Your task to perform on an android device: Search for a 36" x 48" whiteboard on Home Depot Image 0: 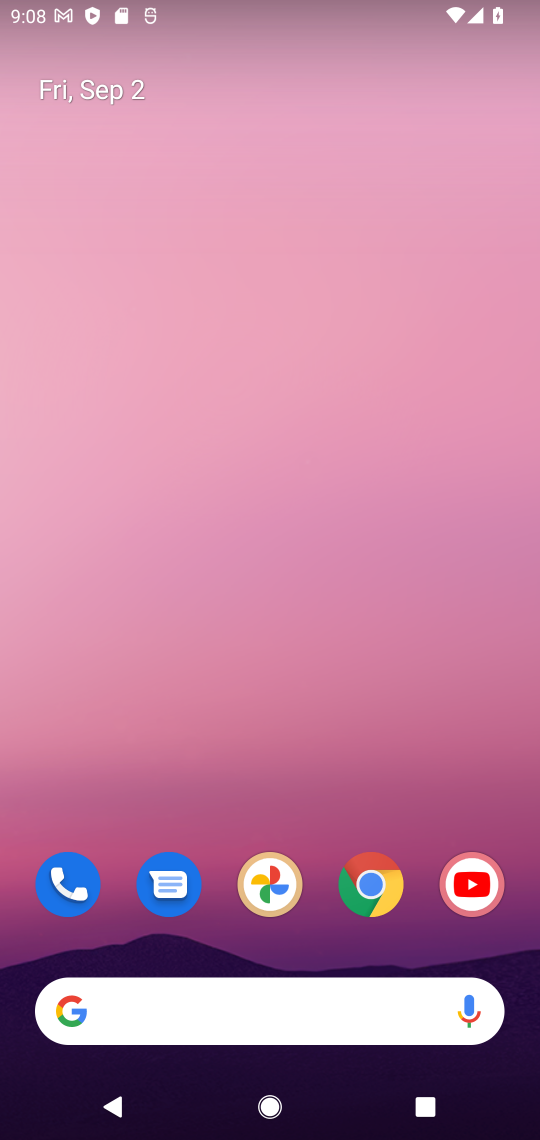
Step 0: click (380, 892)
Your task to perform on an android device: Search for a 36" x 48" whiteboard on Home Depot Image 1: 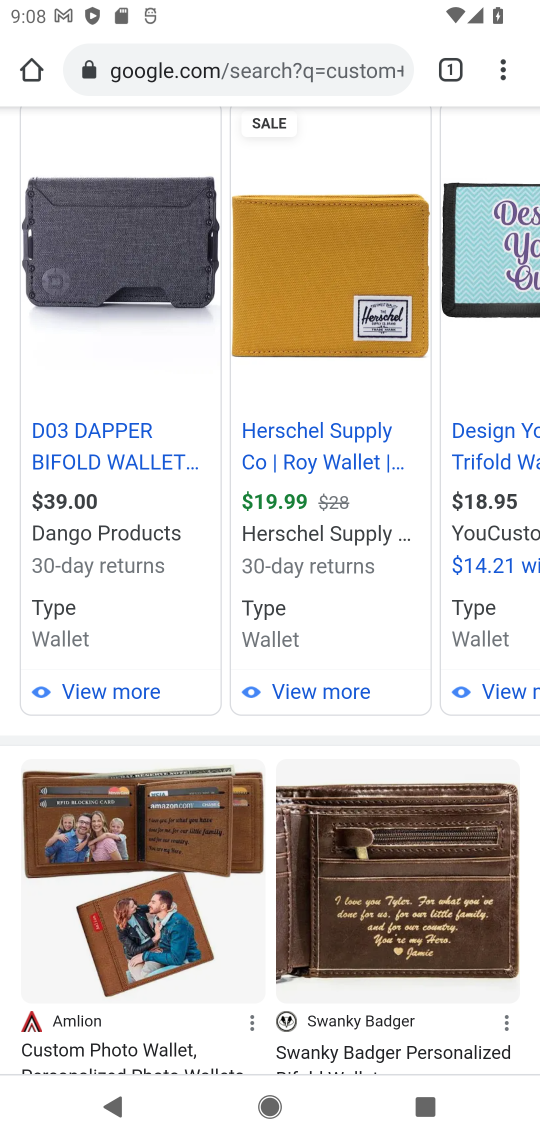
Step 1: click (239, 72)
Your task to perform on an android device: Search for a 36" x 48" whiteboard on Home Depot Image 2: 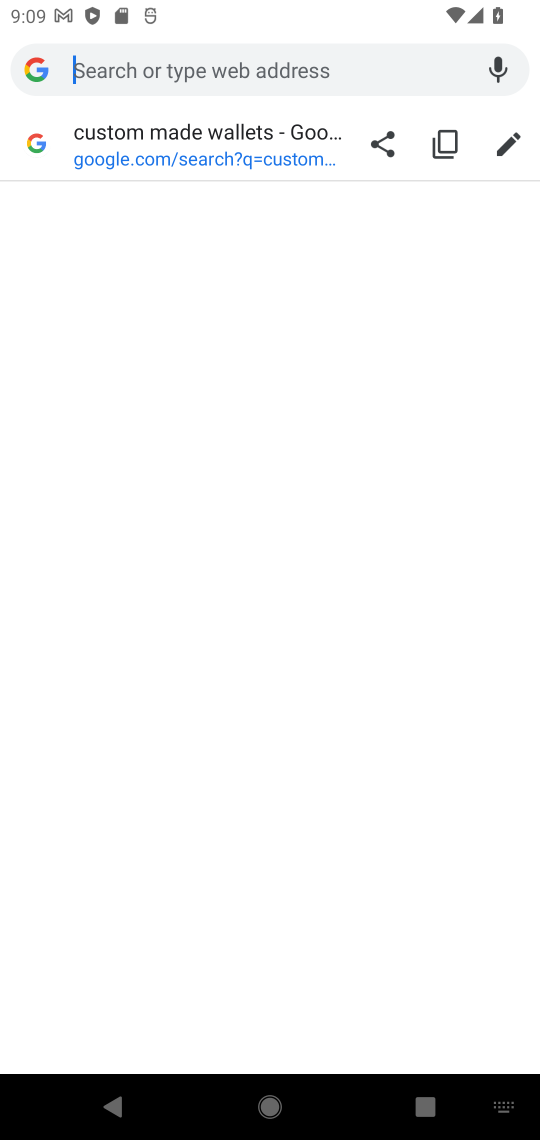
Step 2: type "Home Depot"
Your task to perform on an android device: Search for a 36" x 48" whiteboard on Home Depot Image 3: 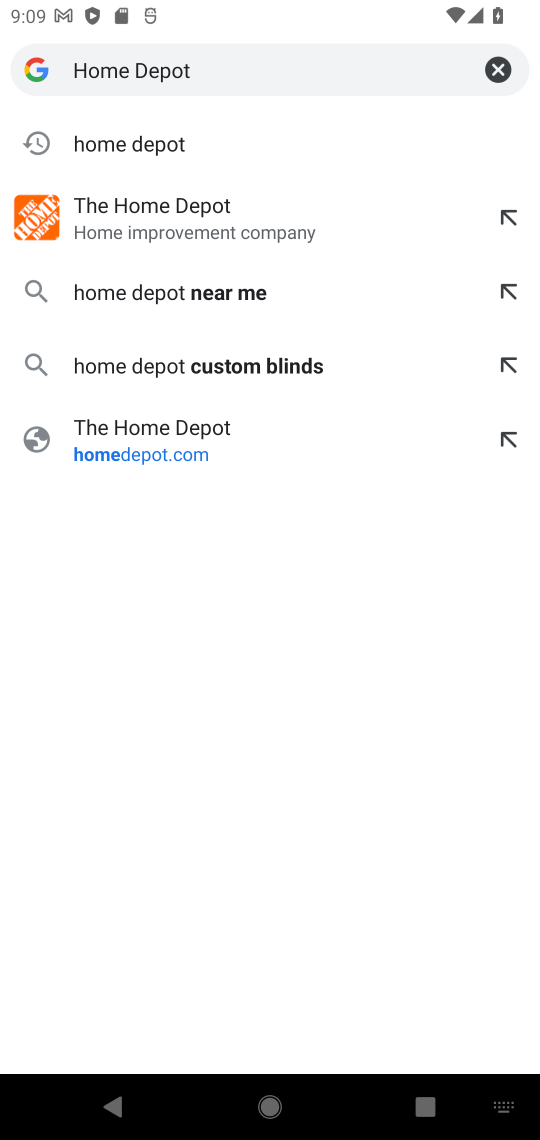
Step 3: click (95, 207)
Your task to perform on an android device: Search for a 36" x 48" whiteboard on Home Depot Image 4: 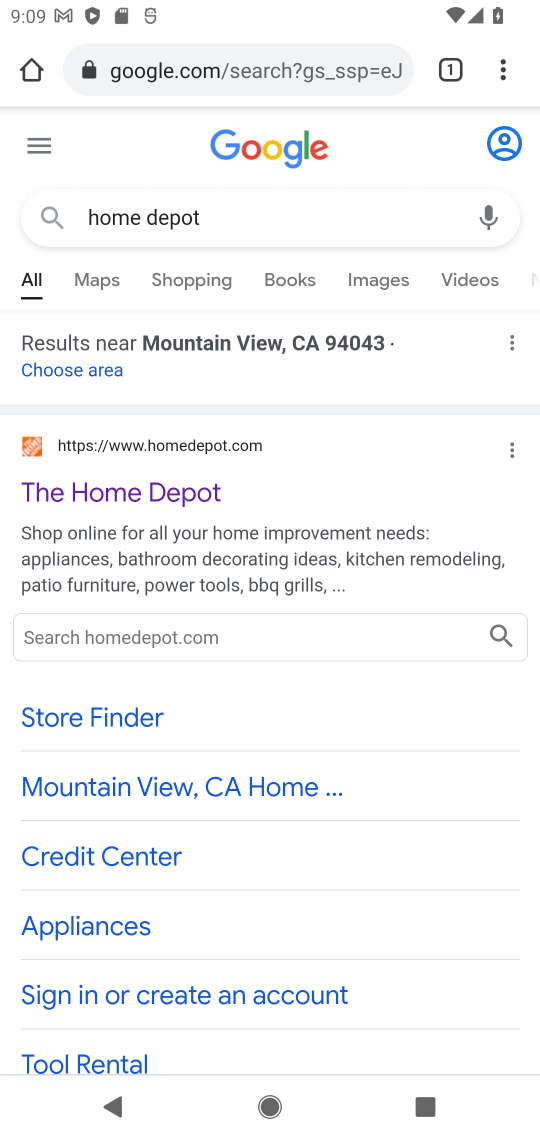
Step 4: click (95, 502)
Your task to perform on an android device: Search for a 36" x 48" whiteboard on Home Depot Image 5: 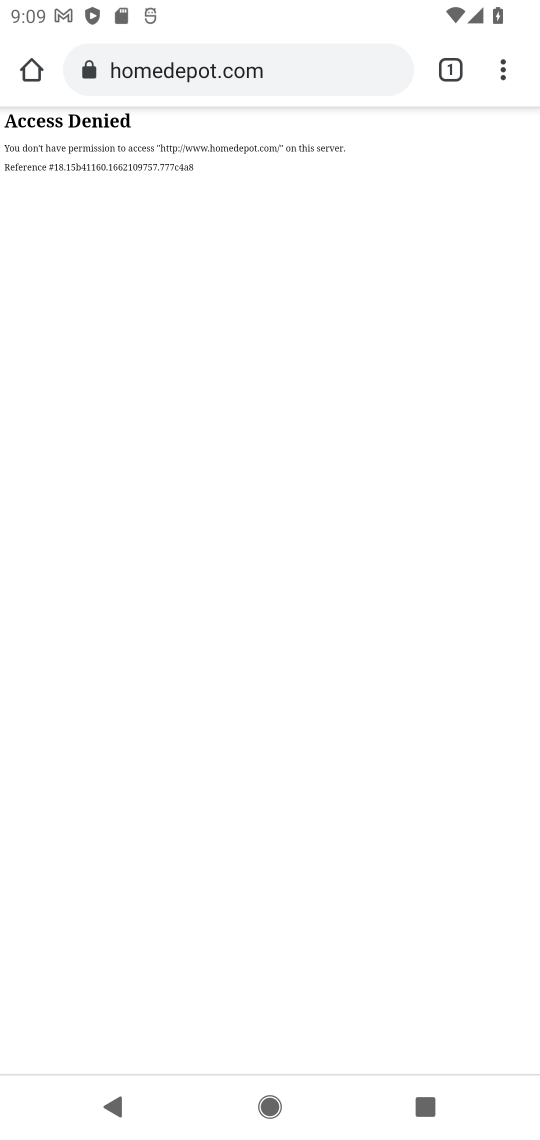
Step 5: task complete